Your task to perform on an android device: See recent photos Image 0: 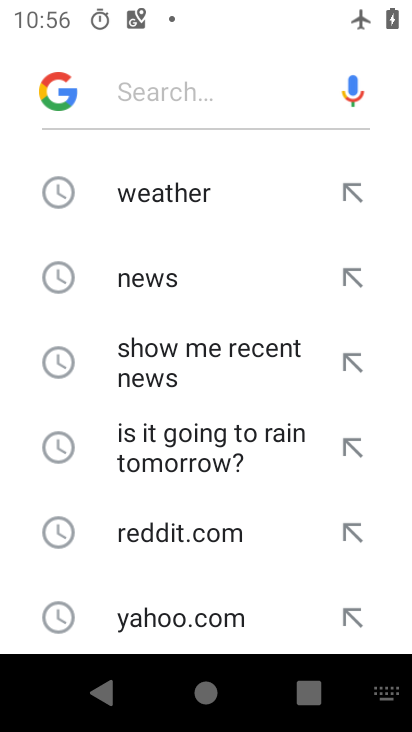
Step 0: press home button
Your task to perform on an android device: See recent photos Image 1: 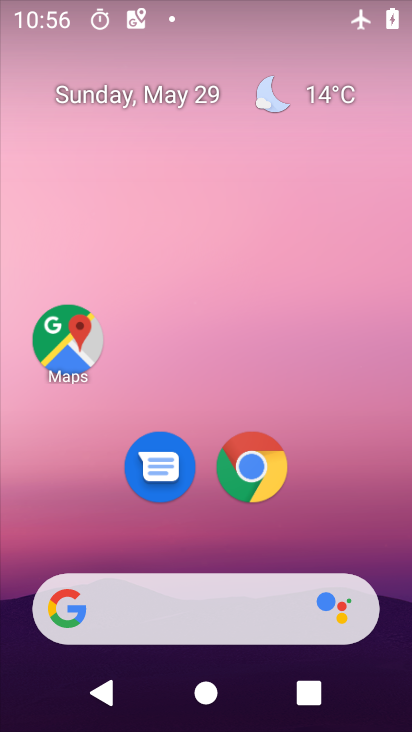
Step 1: drag from (216, 544) to (241, 173)
Your task to perform on an android device: See recent photos Image 2: 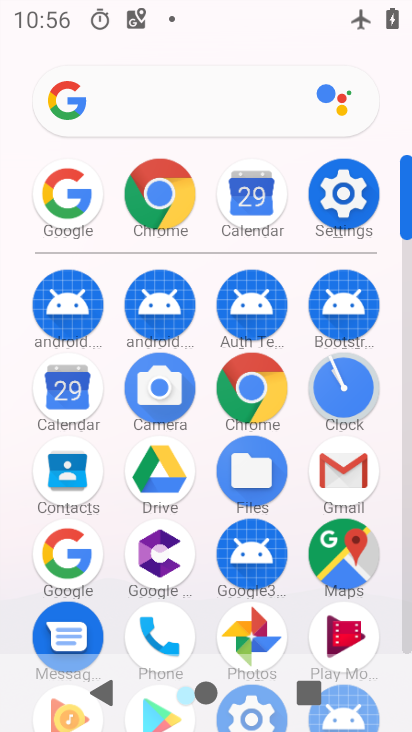
Step 2: click (242, 623)
Your task to perform on an android device: See recent photos Image 3: 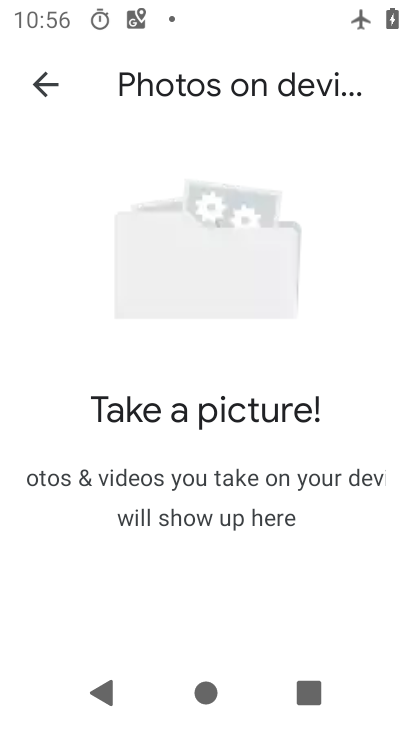
Step 3: click (43, 72)
Your task to perform on an android device: See recent photos Image 4: 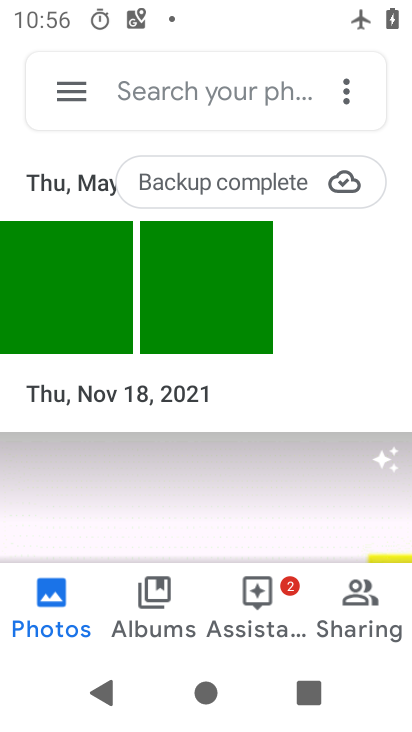
Step 4: task complete